Your task to perform on an android device: Open eBay Image 0: 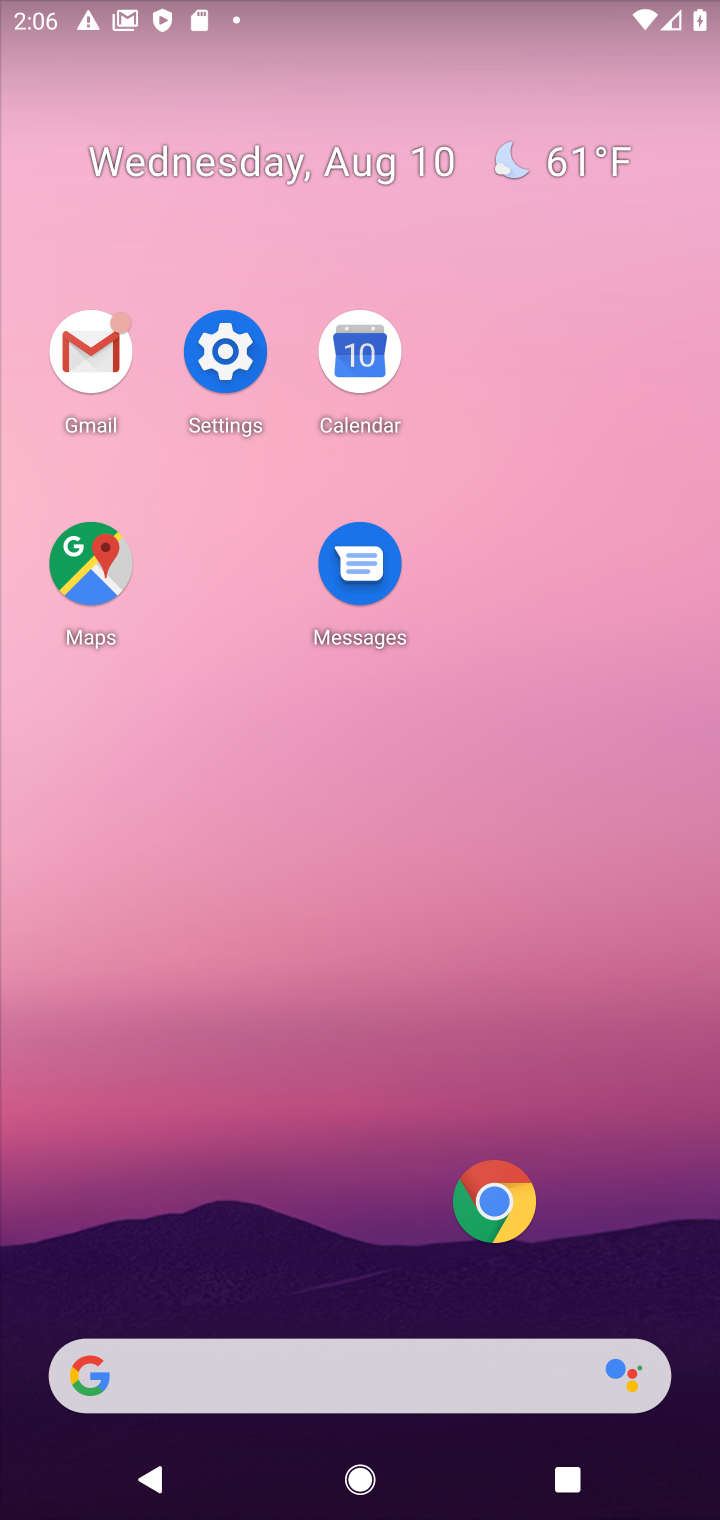
Step 0: press home button
Your task to perform on an android device: Open eBay Image 1: 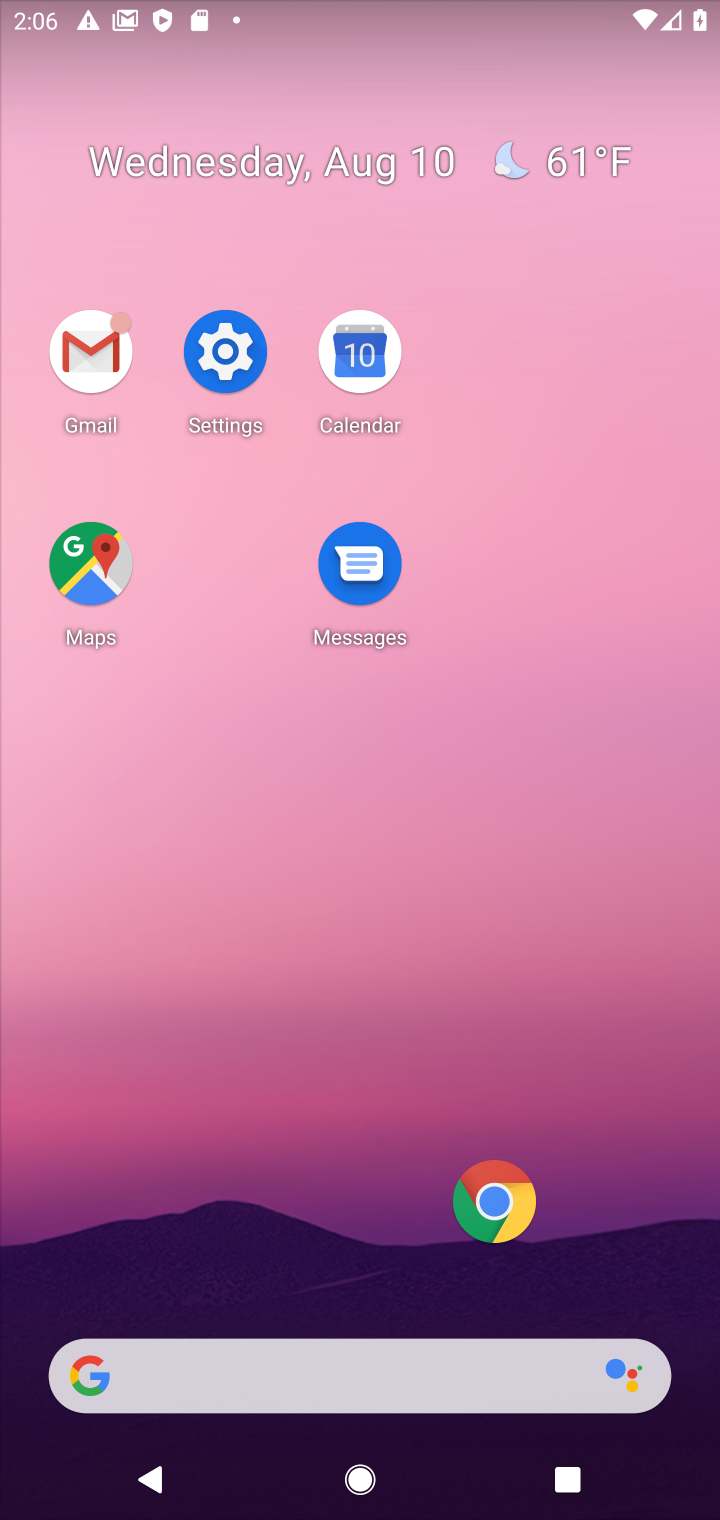
Step 1: click (517, 1183)
Your task to perform on an android device: Open eBay Image 2: 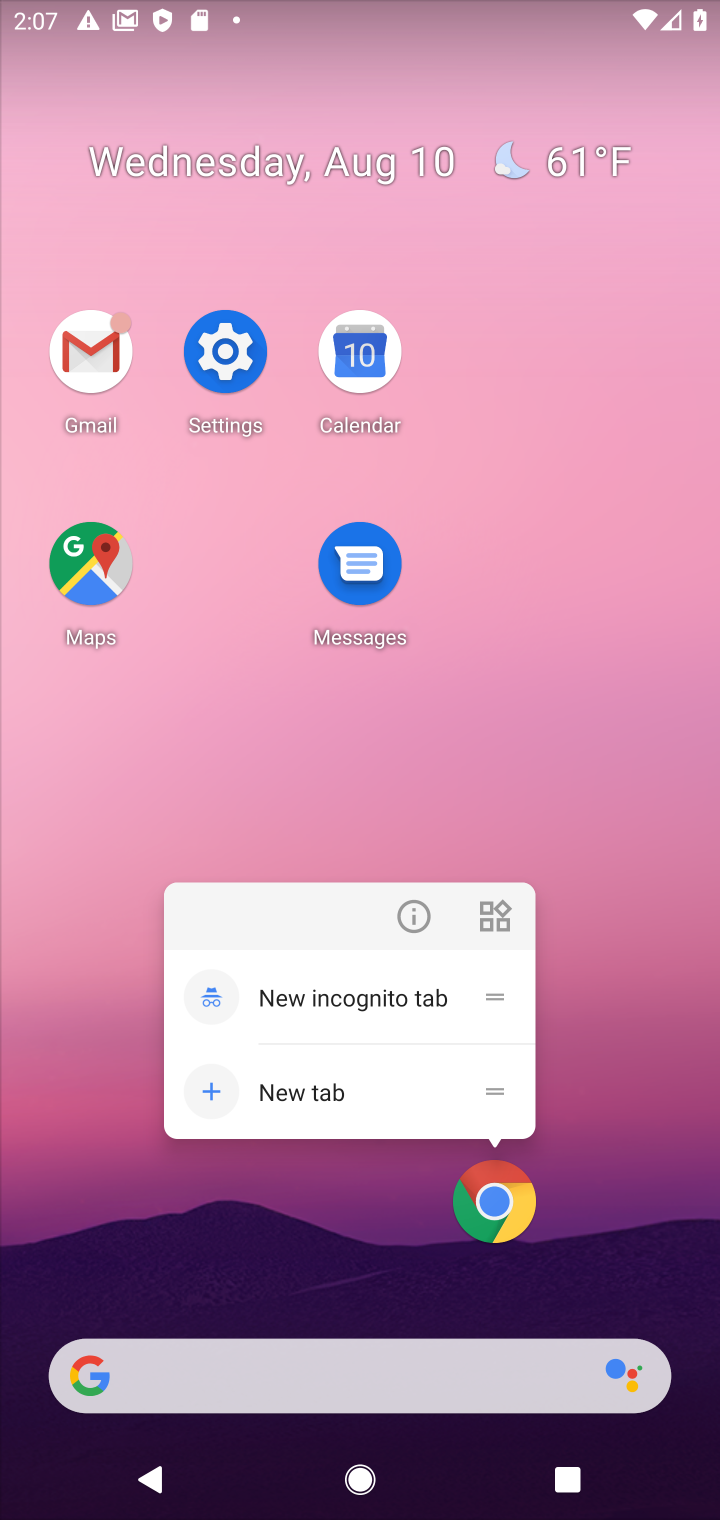
Step 2: click (492, 1188)
Your task to perform on an android device: Open eBay Image 3: 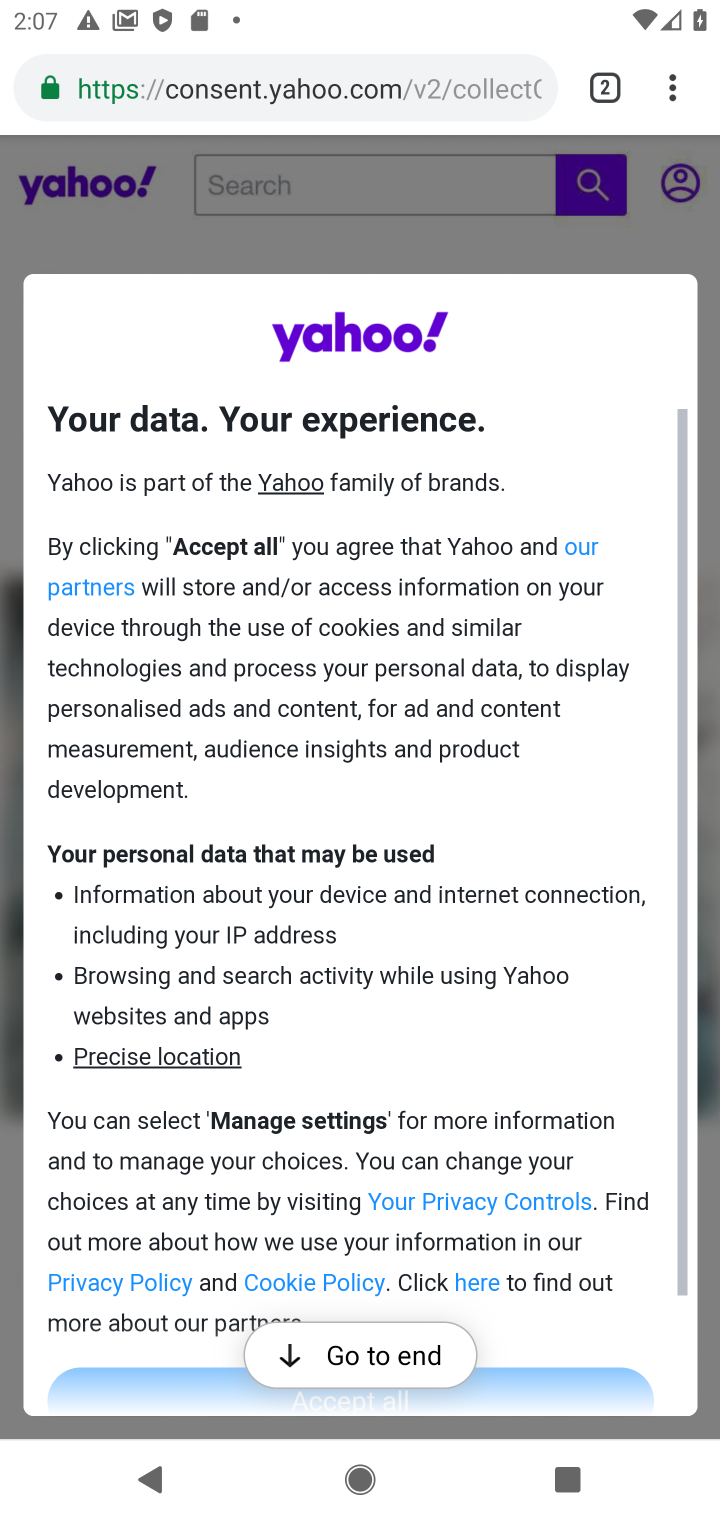
Step 3: click (596, 65)
Your task to perform on an android device: Open eBay Image 4: 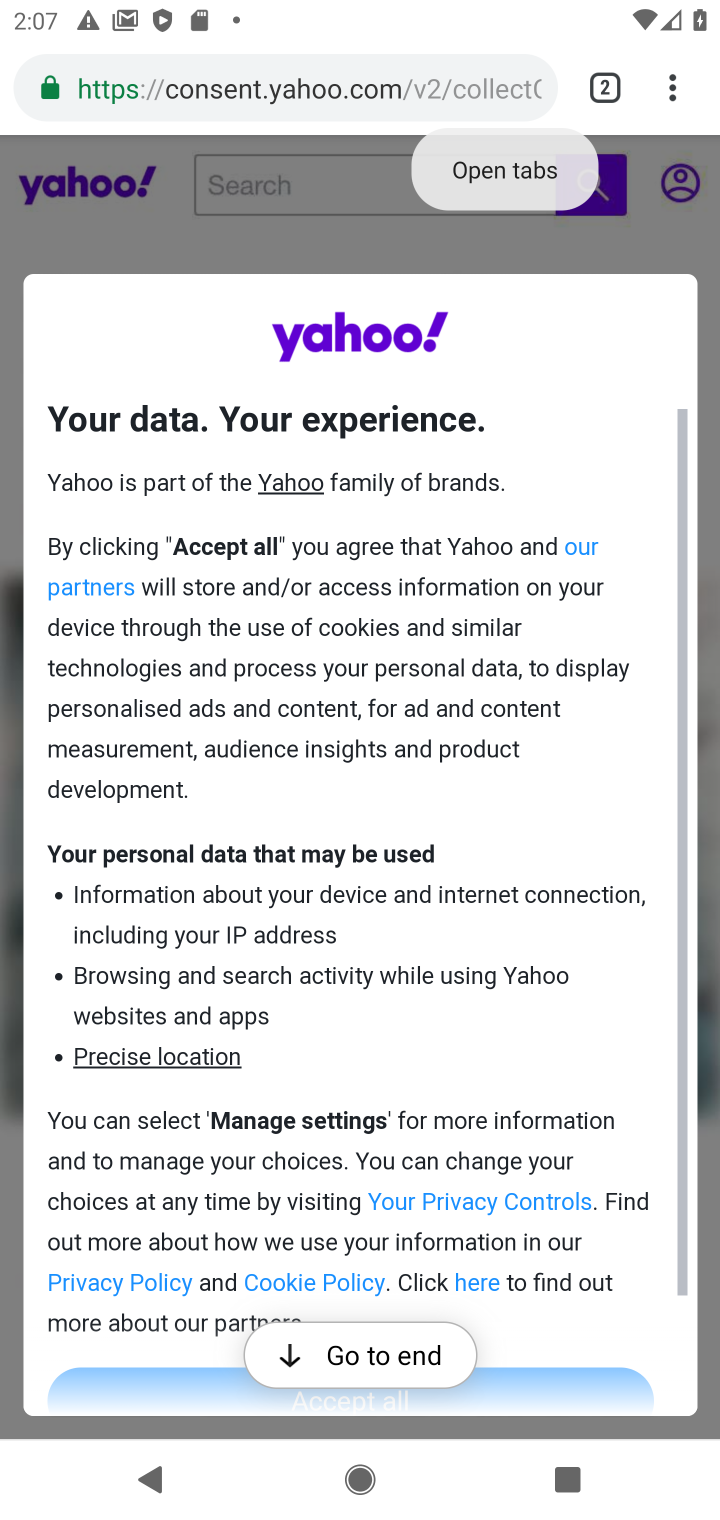
Step 4: click (590, 84)
Your task to perform on an android device: Open eBay Image 5: 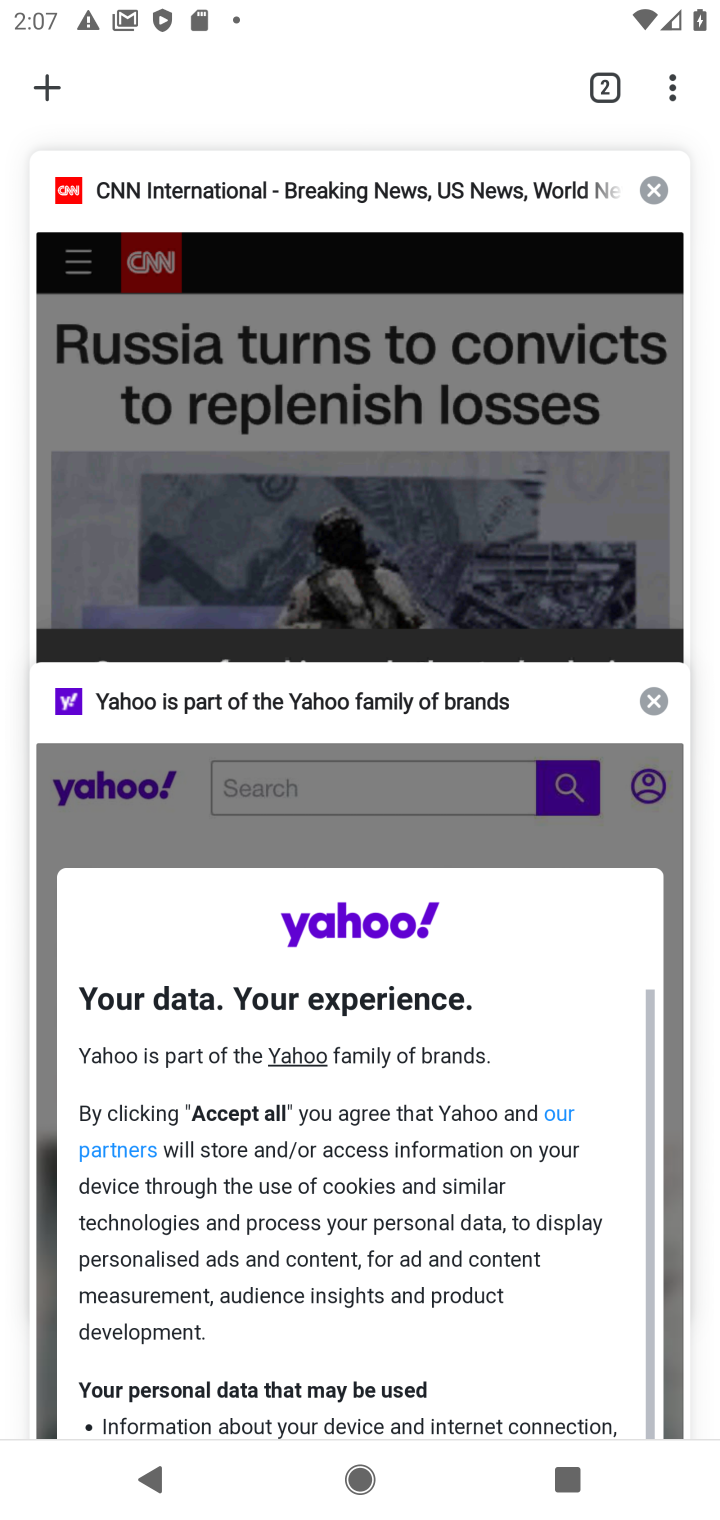
Step 5: click (33, 75)
Your task to perform on an android device: Open eBay Image 6: 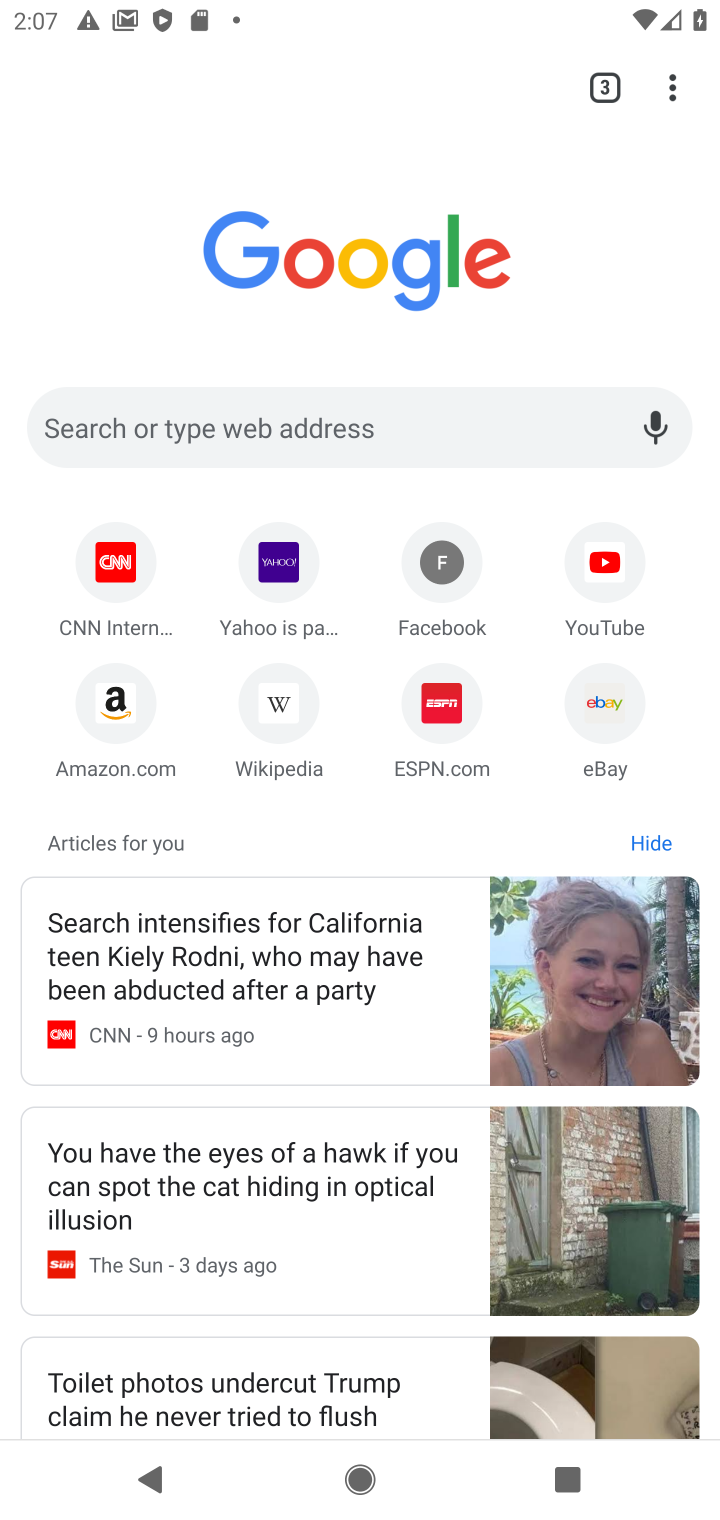
Step 6: click (608, 710)
Your task to perform on an android device: Open eBay Image 7: 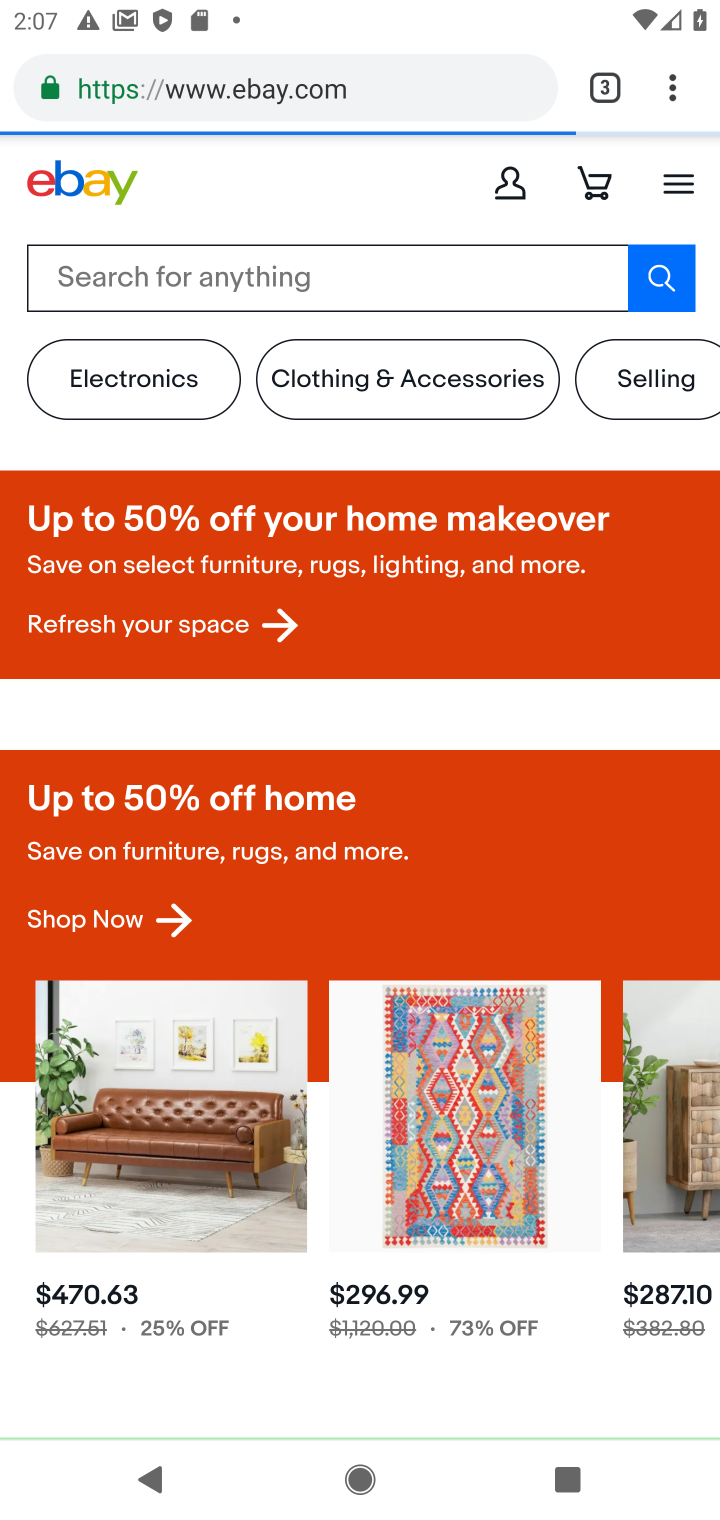
Step 7: task complete